Your task to perform on an android device: Go to Wikipedia Image 0: 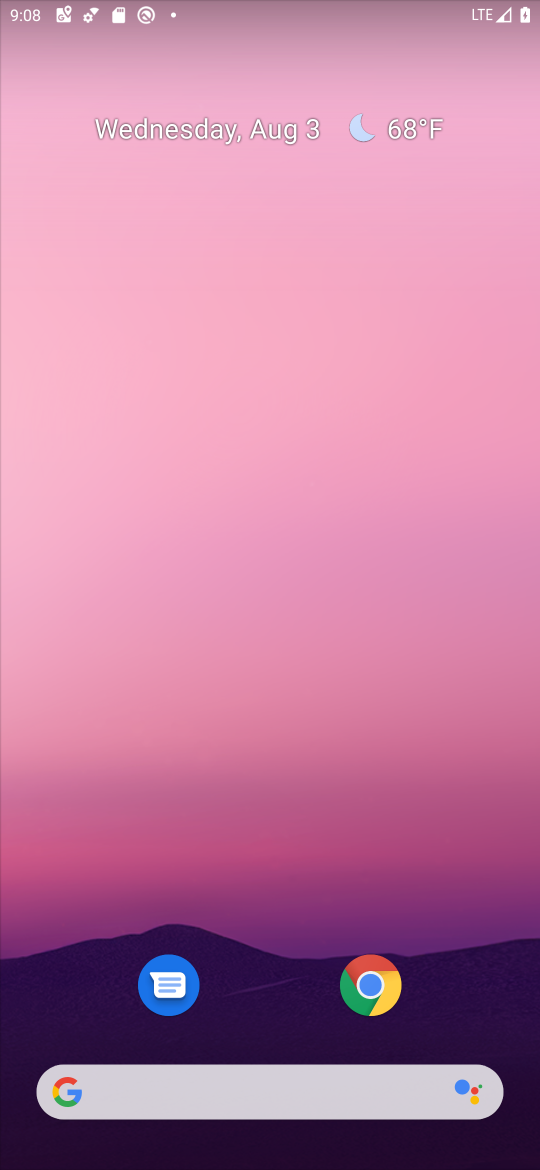
Step 0: click (382, 965)
Your task to perform on an android device: Go to Wikipedia Image 1: 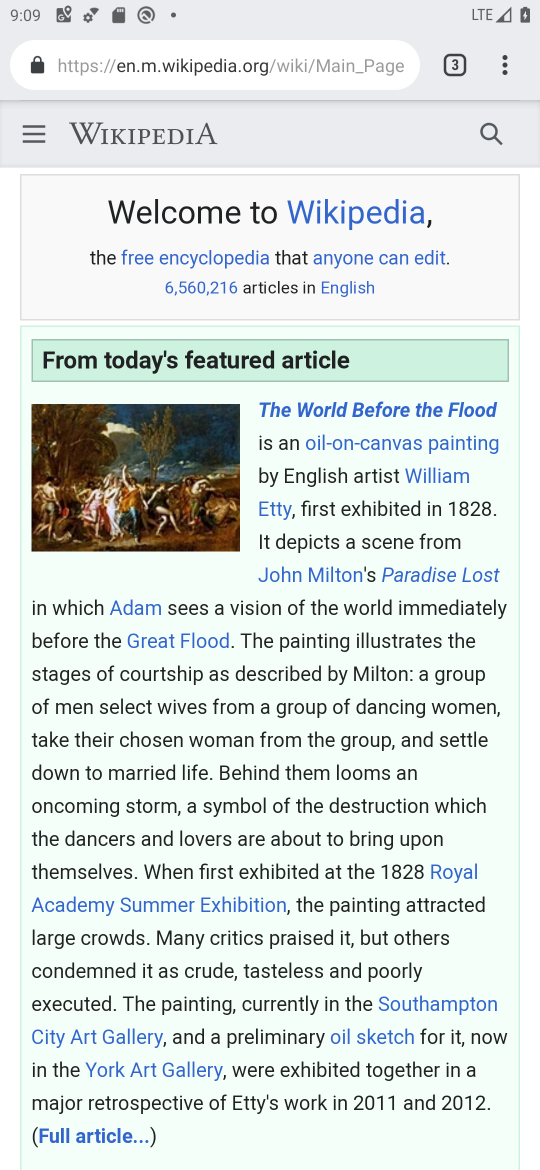
Step 1: task complete